Your task to perform on an android device: toggle notification dots Image 0: 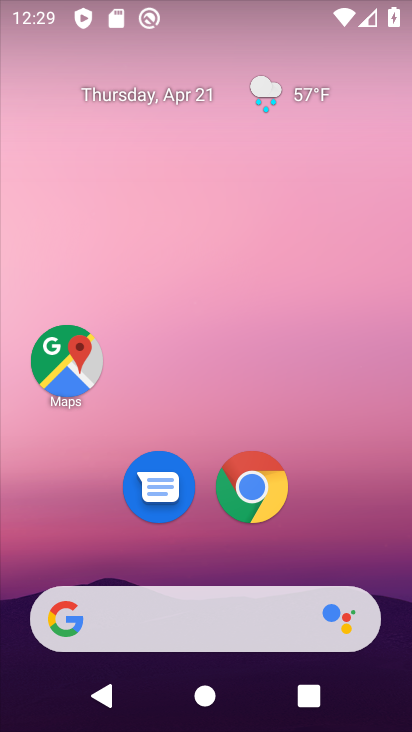
Step 0: drag from (383, 538) to (371, 191)
Your task to perform on an android device: toggle notification dots Image 1: 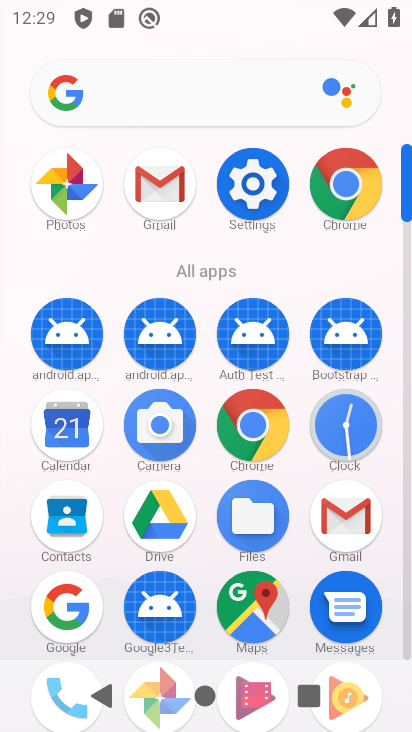
Step 1: click (258, 196)
Your task to perform on an android device: toggle notification dots Image 2: 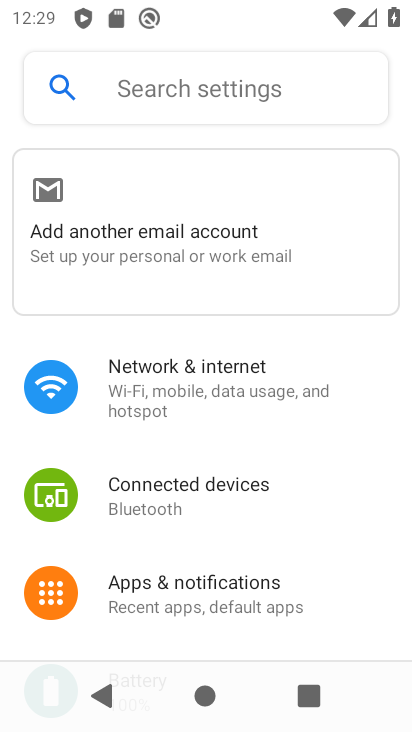
Step 2: drag from (308, 552) to (302, 347)
Your task to perform on an android device: toggle notification dots Image 3: 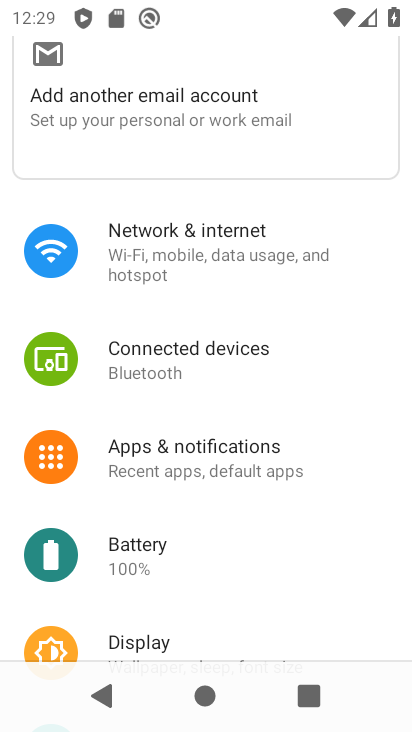
Step 3: click (276, 462)
Your task to perform on an android device: toggle notification dots Image 4: 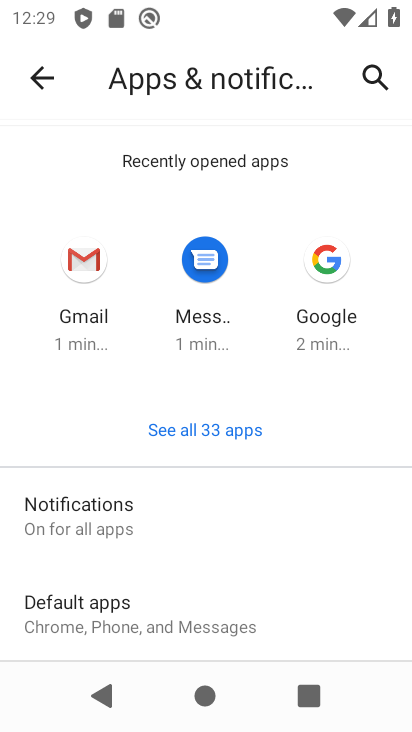
Step 4: click (127, 527)
Your task to perform on an android device: toggle notification dots Image 5: 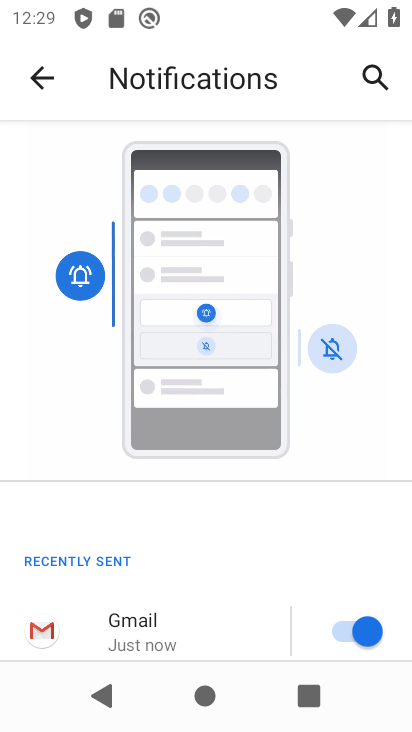
Step 5: drag from (190, 600) to (320, 274)
Your task to perform on an android device: toggle notification dots Image 6: 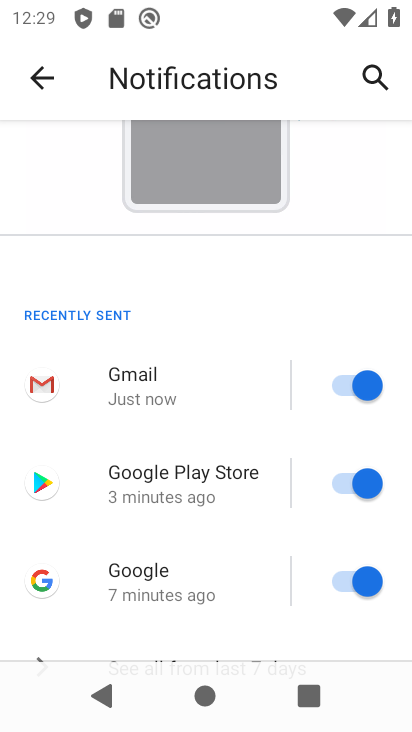
Step 6: drag from (270, 607) to (235, 305)
Your task to perform on an android device: toggle notification dots Image 7: 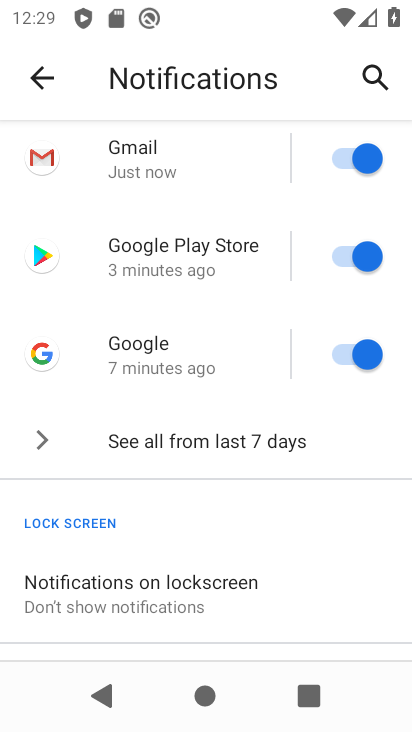
Step 7: drag from (265, 516) to (247, 231)
Your task to perform on an android device: toggle notification dots Image 8: 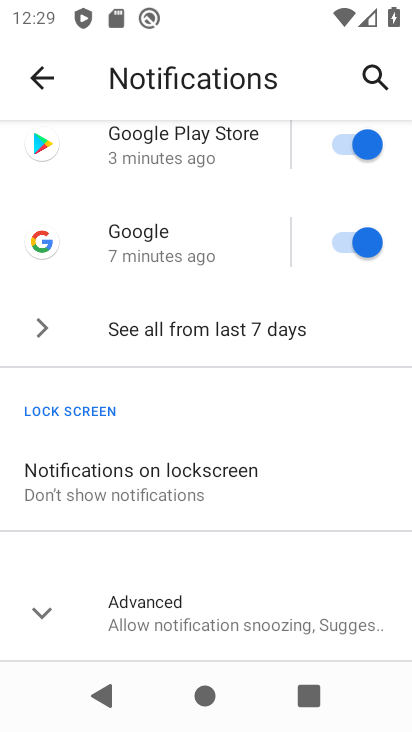
Step 8: click (219, 622)
Your task to perform on an android device: toggle notification dots Image 9: 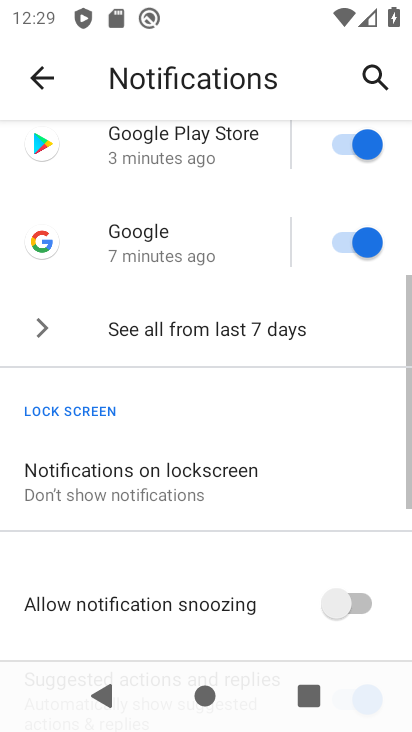
Step 9: drag from (208, 632) to (232, 425)
Your task to perform on an android device: toggle notification dots Image 10: 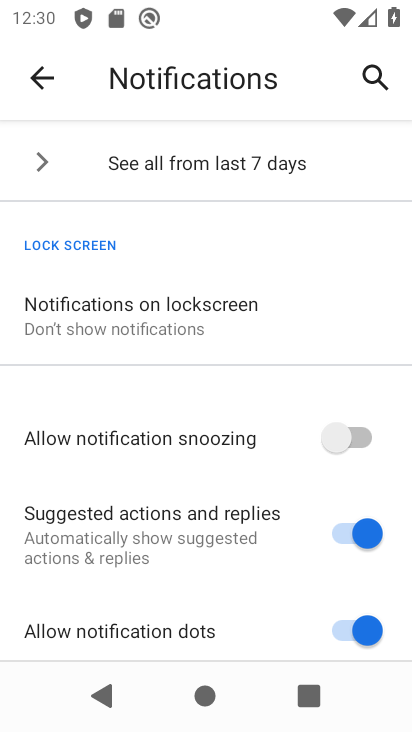
Step 10: drag from (191, 592) to (219, 398)
Your task to perform on an android device: toggle notification dots Image 11: 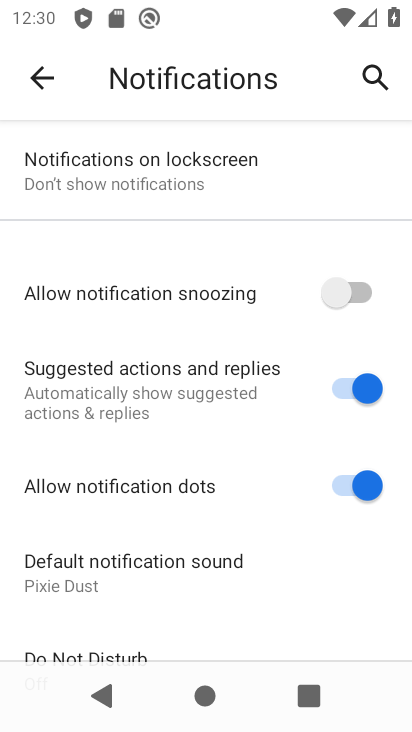
Step 11: click (346, 486)
Your task to perform on an android device: toggle notification dots Image 12: 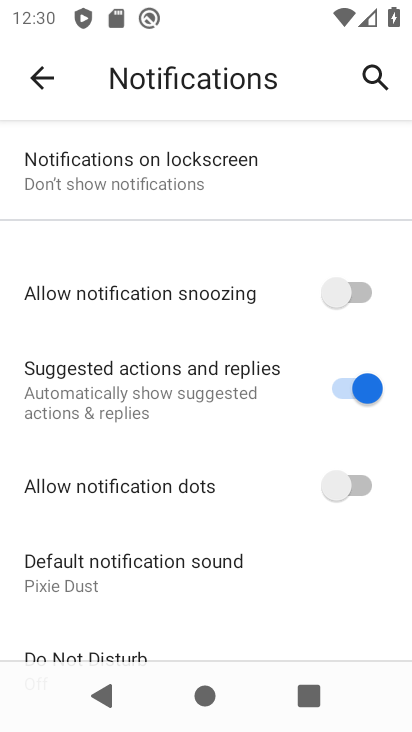
Step 12: task complete